Your task to perform on an android device: Open ESPN.com Image 0: 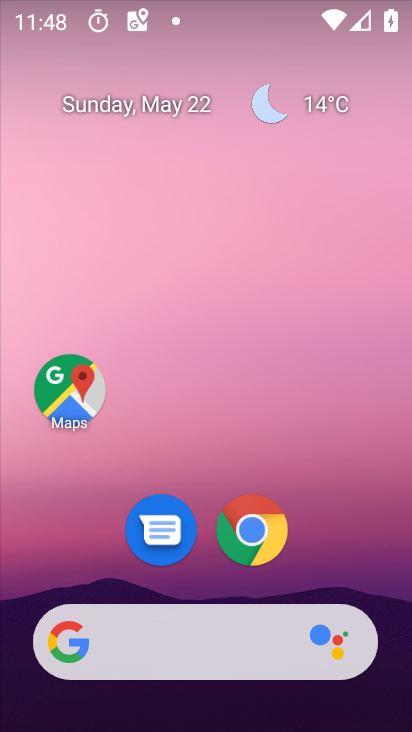
Step 0: click (225, 511)
Your task to perform on an android device: Open ESPN.com Image 1: 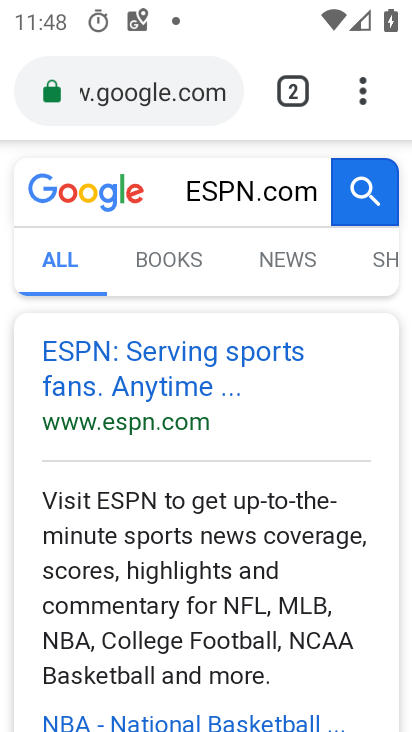
Step 1: click (218, 88)
Your task to perform on an android device: Open ESPN.com Image 2: 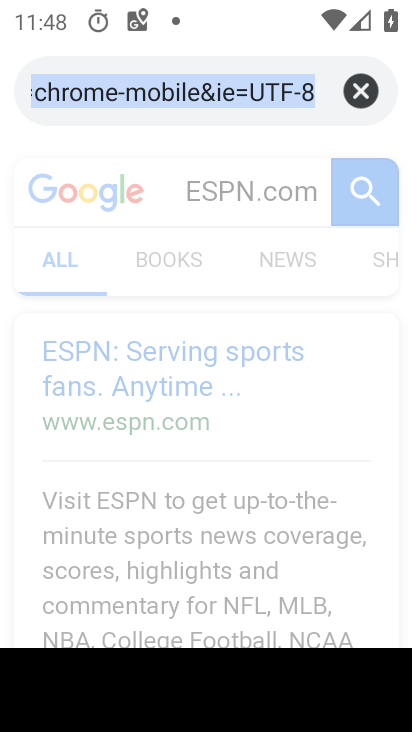
Step 2: click (366, 86)
Your task to perform on an android device: Open ESPN.com Image 3: 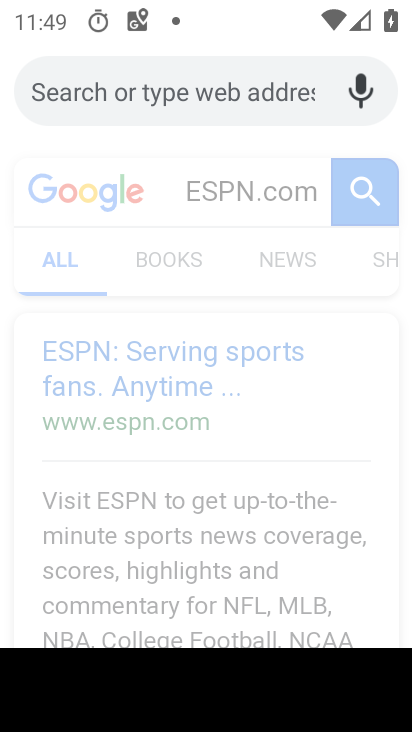
Step 3: type "ESPN.com"
Your task to perform on an android device: Open ESPN.com Image 4: 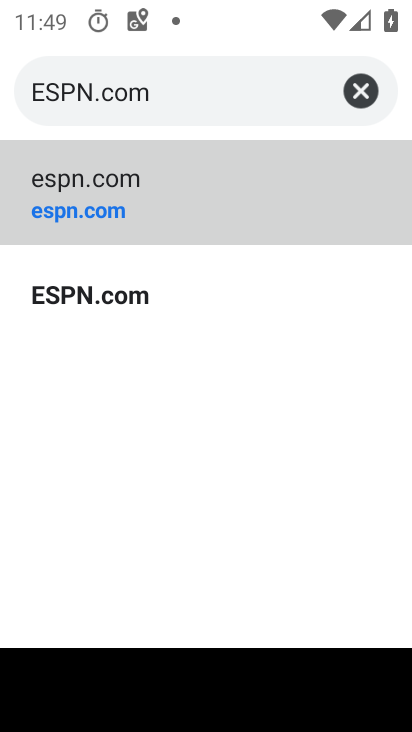
Step 4: click (97, 298)
Your task to perform on an android device: Open ESPN.com Image 5: 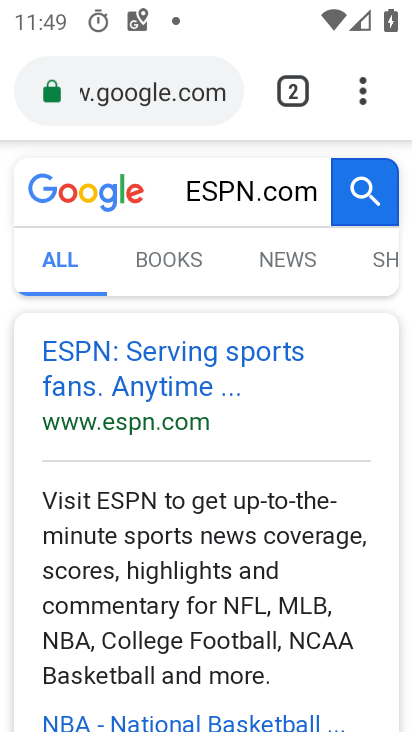
Step 5: task complete